Your task to perform on an android device: What's the weather today? Image 0: 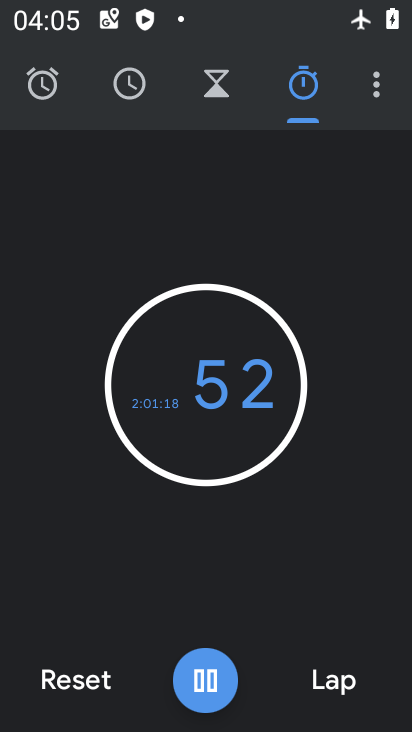
Step 0: press home button
Your task to perform on an android device: What's the weather today? Image 1: 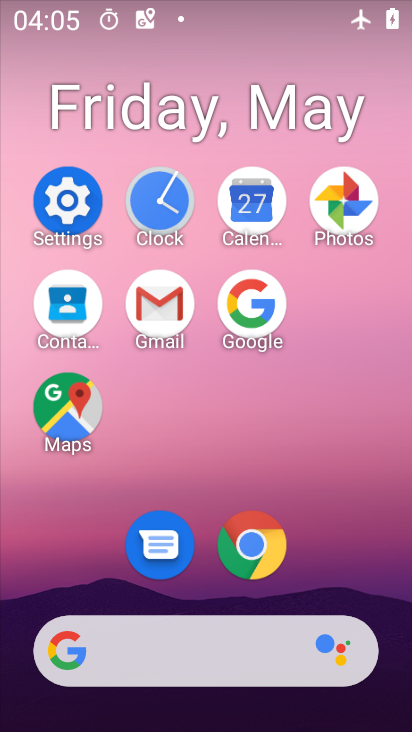
Step 1: click (267, 284)
Your task to perform on an android device: What's the weather today? Image 2: 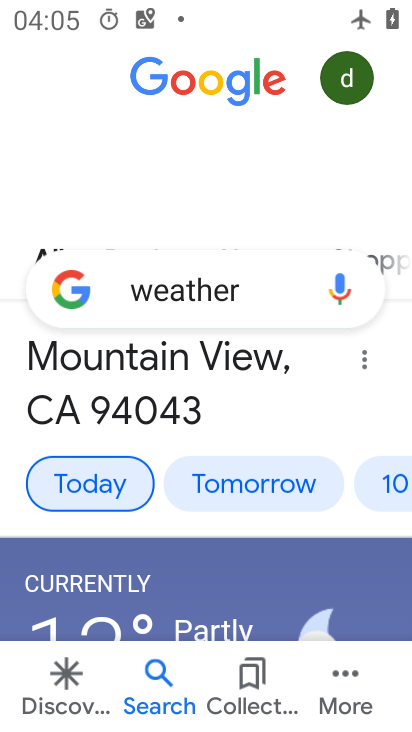
Step 2: task complete